Your task to perform on an android device: make emails show in primary in the gmail app Image 0: 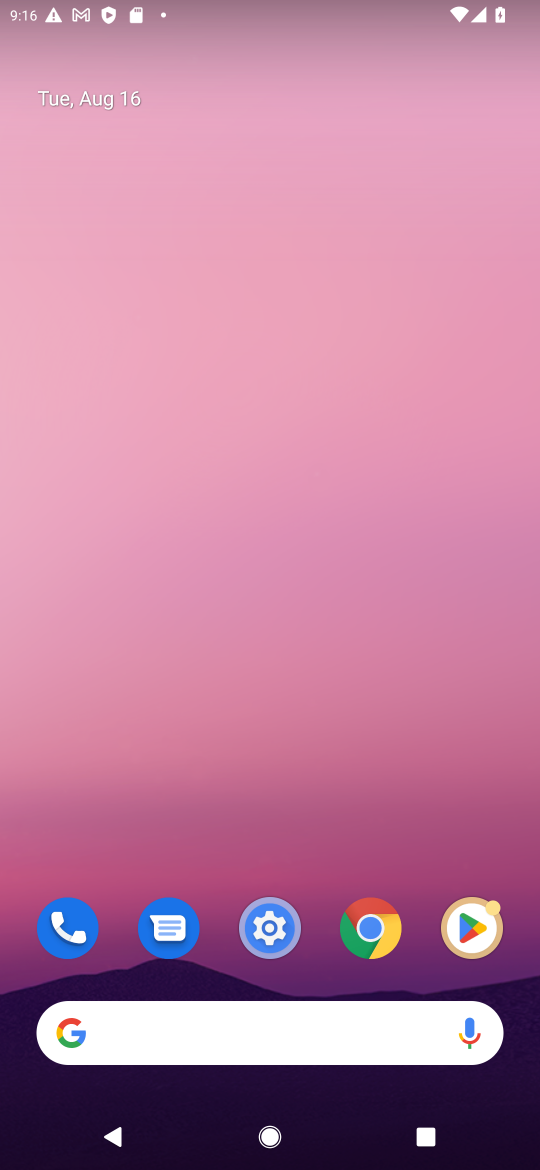
Step 0: press home button
Your task to perform on an android device: make emails show in primary in the gmail app Image 1: 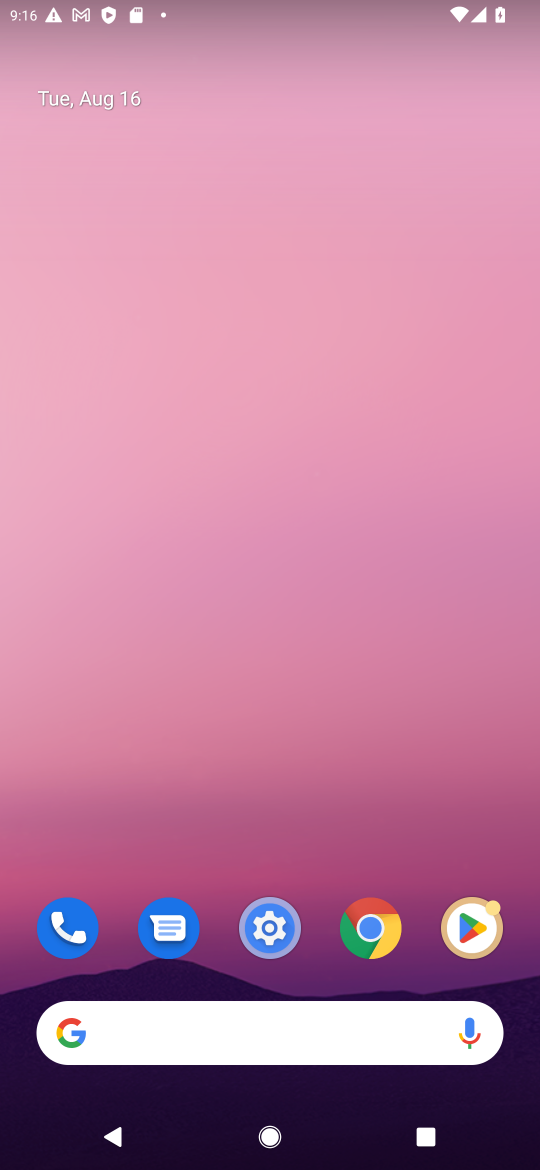
Step 1: drag from (352, 813) to (330, 29)
Your task to perform on an android device: make emails show in primary in the gmail app Image 2: 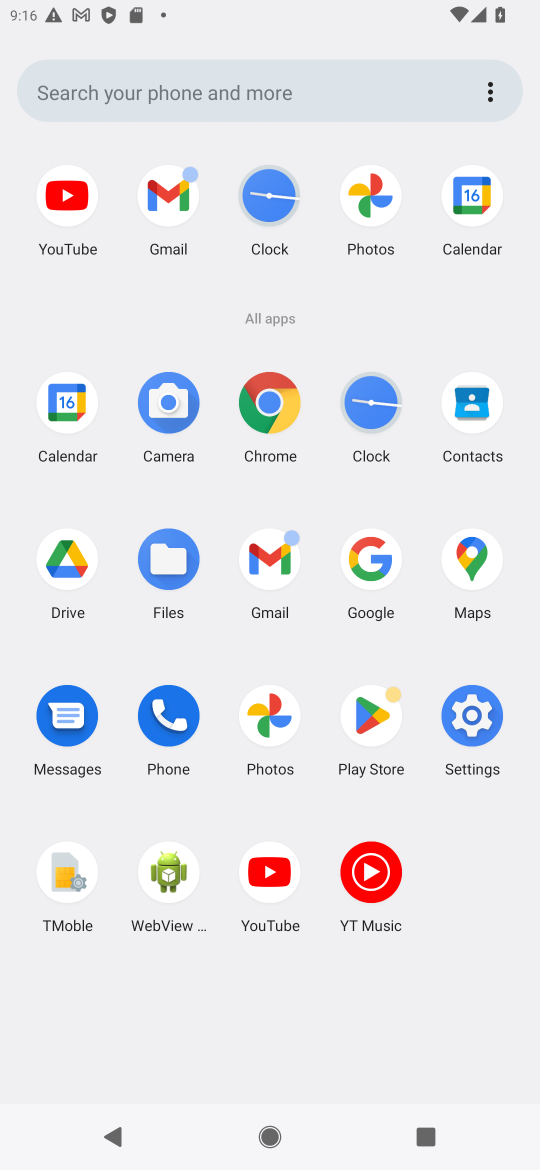
Step 2: click (165, 191)
Your task to perform on an android device: make emails show in primary in the gmail app Image 3: 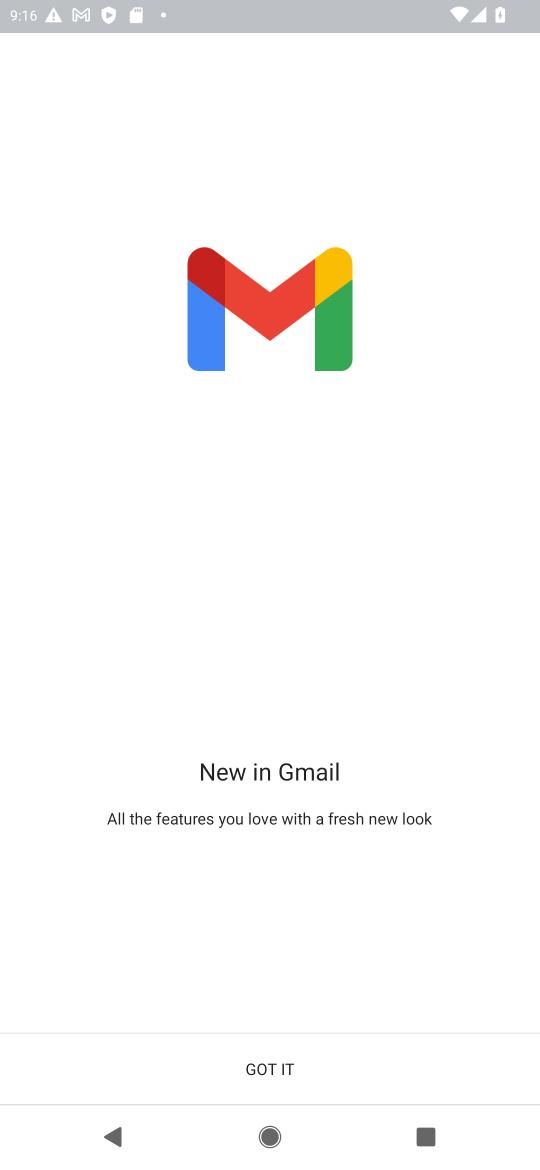
Step 3: click (274, 1063)
Your task to perform on an android device: make emails show in primary in the gmail app Image 4: 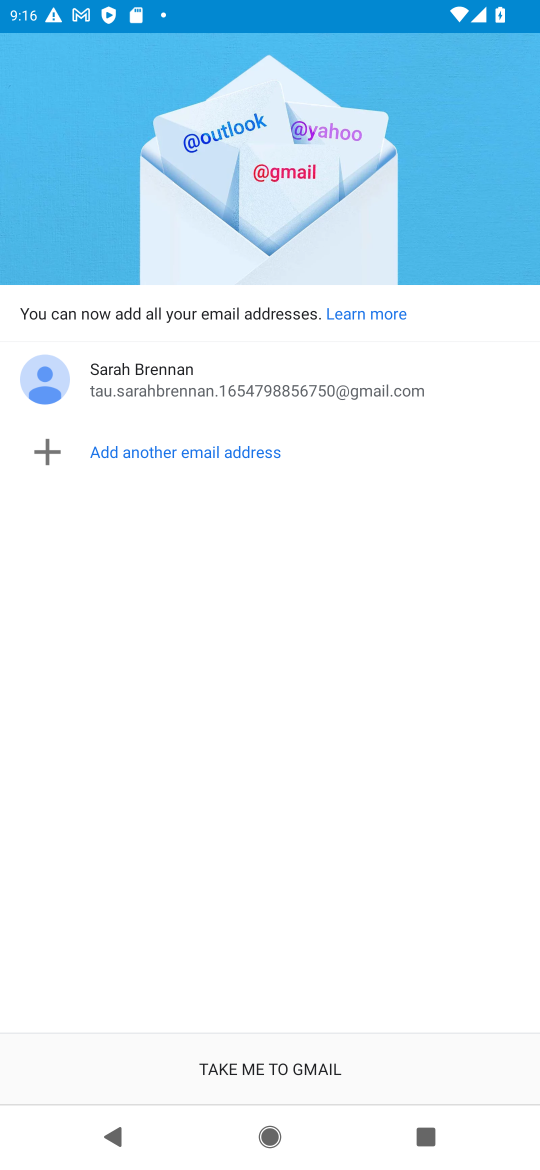
Step 4: click (276, 1067)
Your task to perform on an android device: make emails show in primary in the gmail app Image 5: 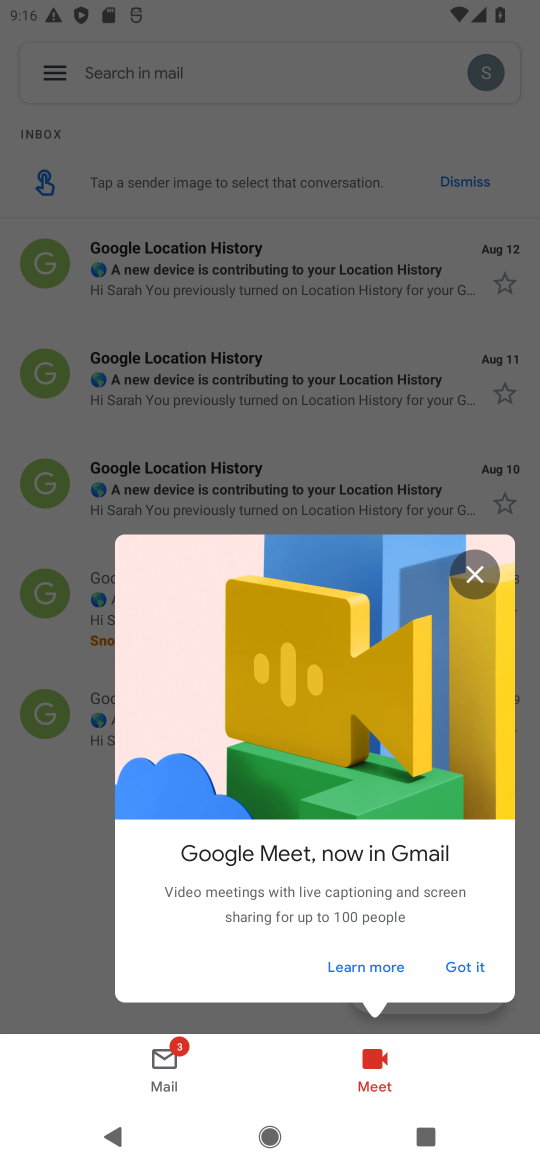
Step 5: click (482, 560)
Your task to perform on an android device: make emails show in primary in the gmail app Image 6: 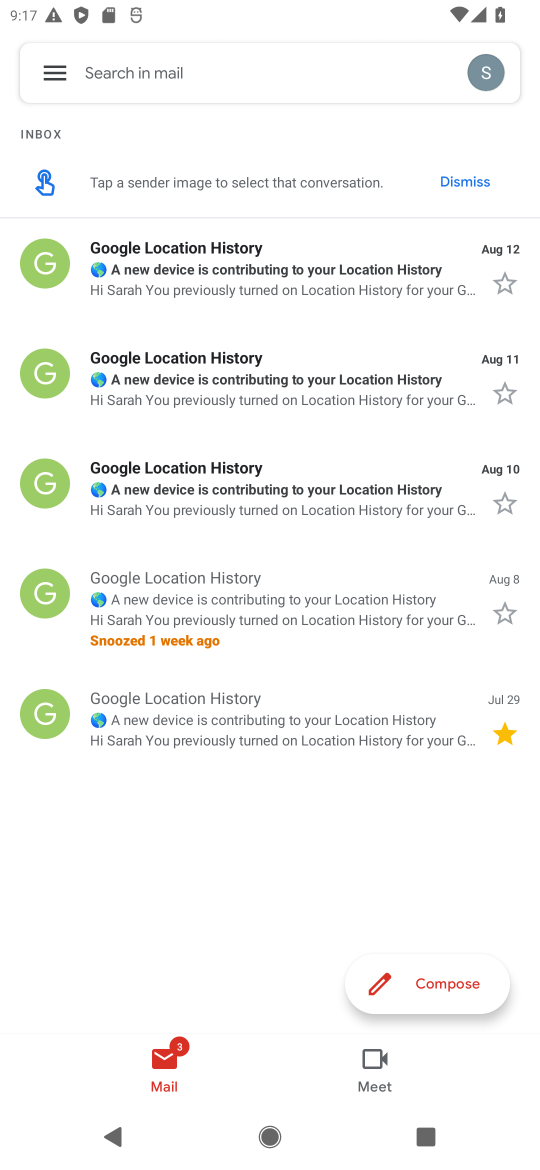
Step 6: click (55, 78)
Your task to perform on an android device: make emails show in primary in the gmail app Image 7: 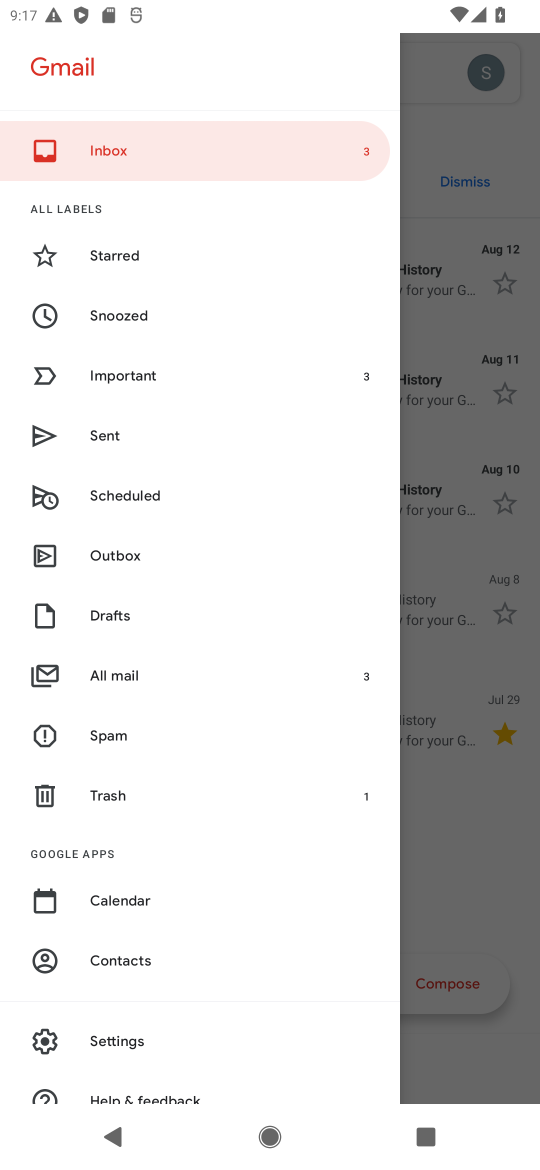
Step 7: click (159, 1040)
Your task to perform on an android device: make emails show in primary in the gmail app Image 8: 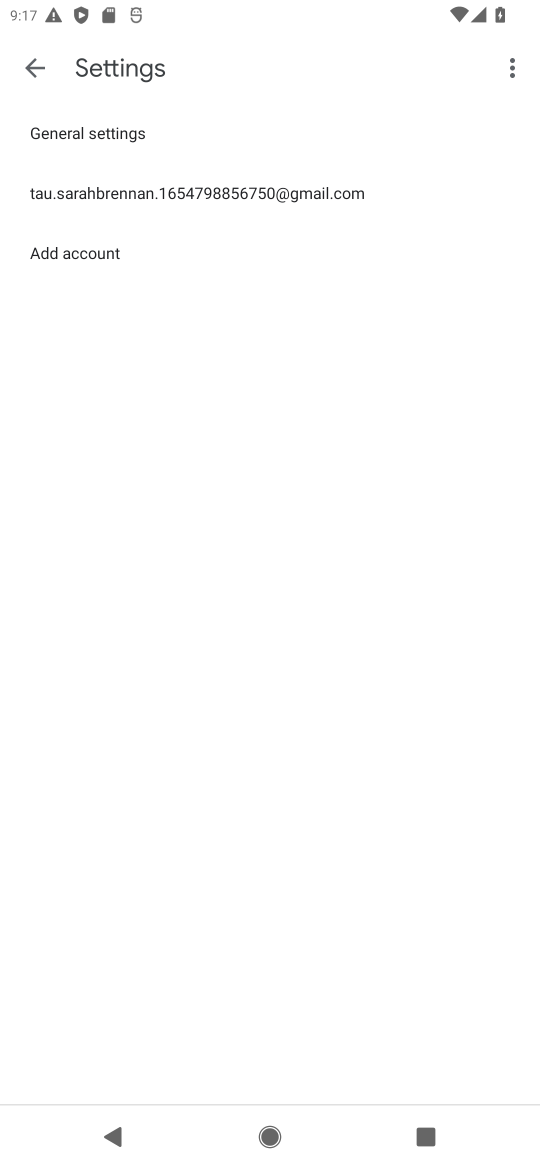
Step 8: click (99, 189)
Your task to perform on an android device: make emails show in primary in the gmail app Image 9: 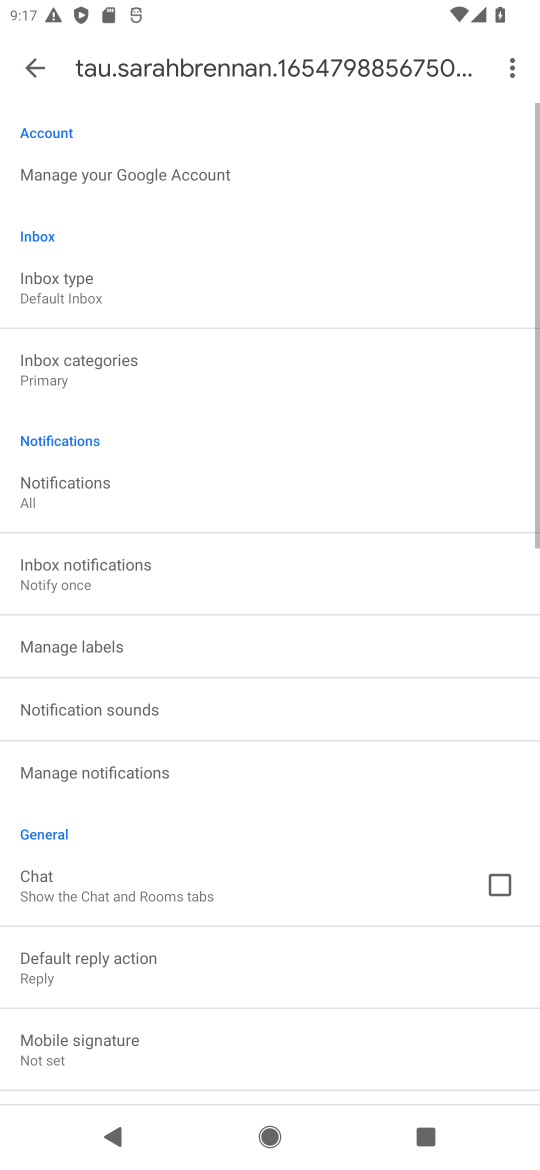
Step 9: click (86, 274)
Your task to perform on an android device: make emails show in primary in the gmail app Image 10: 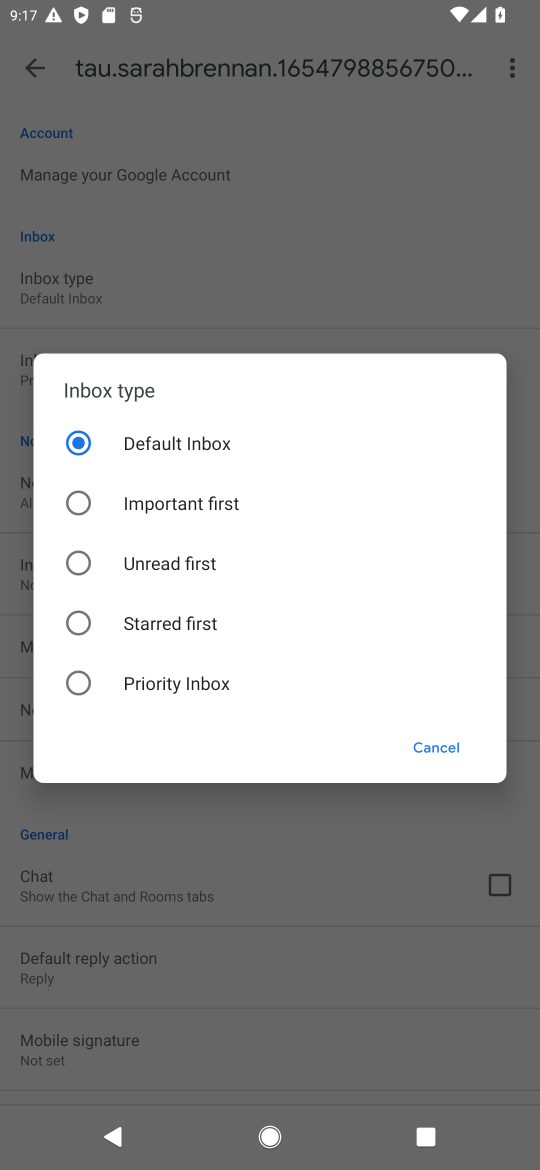
Step 10: click (216, 235)
Your task to perform on an android device: make emails show in primary in the gmail app Image 11: 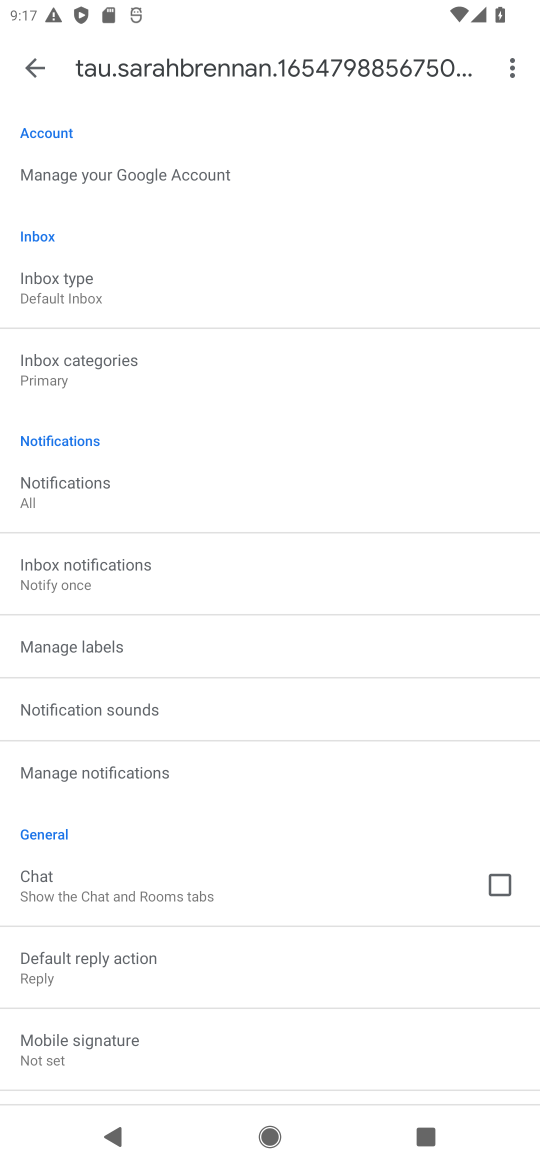
Step 11: click (73, 354)
Your task to perform on an android device: make emails show in primary in the gmail app Image 12: 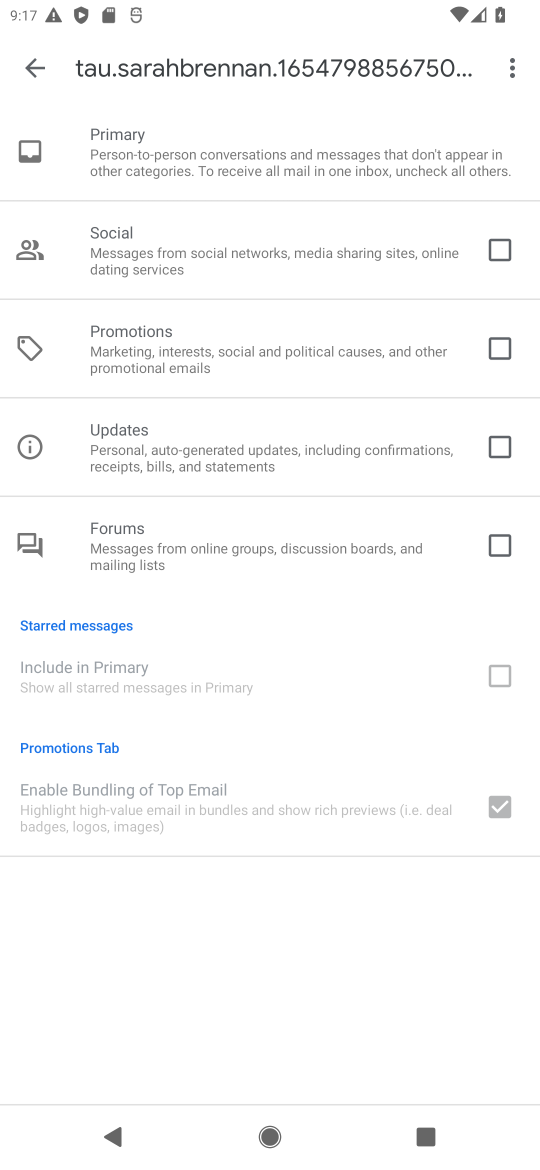
Step 12: task complete